Your task to perform on an android device: change timer sound Image 0: 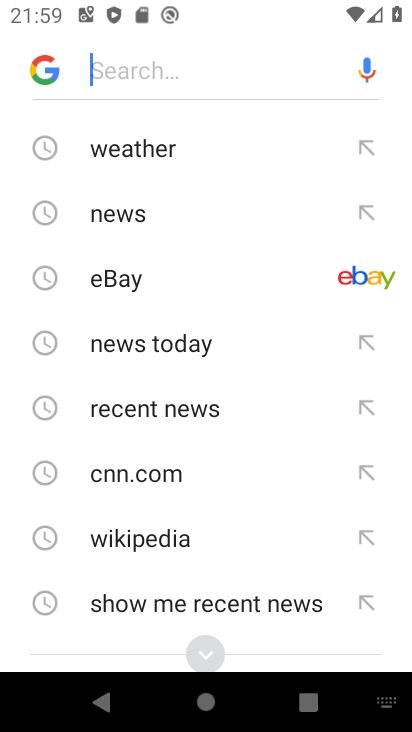
Step 0: press home button
Your task to perform on an android device: change timer sound Image 1: 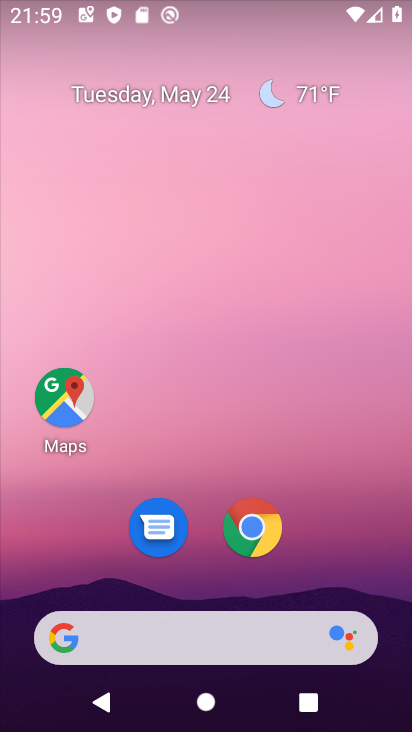
Step 1: drag from (184, 599) to (162, 66)
Your task to perform on an android device: change timer sound Image 2: 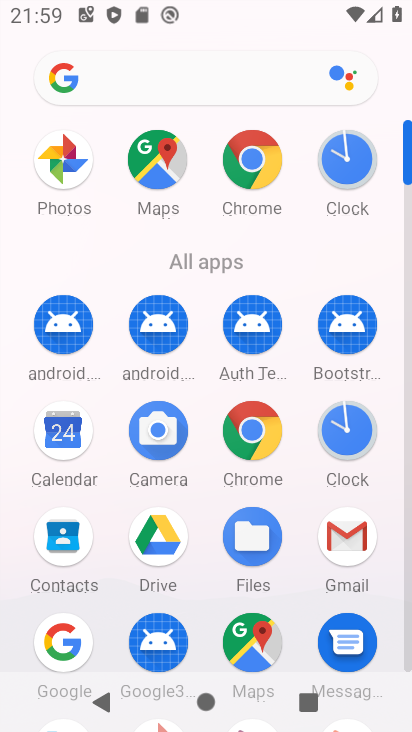
Step 2: click (349, 425)
Your task to perform on an android device: change timer sound Image 3: 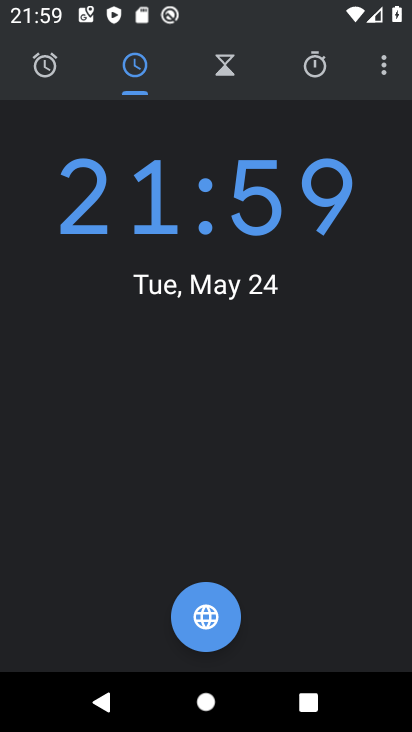
Step 3: click (371, 57)
Your task to perform on an android device: change timer sound Image 4: 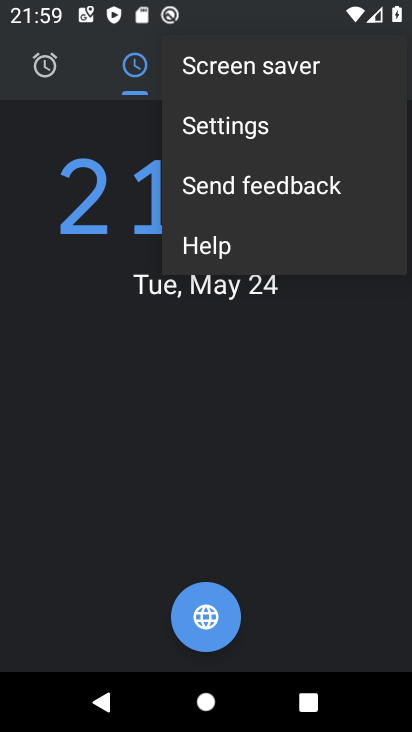
Step 4: click (269, 138)
Your task to perform on an android device: change timer sound Image 5: 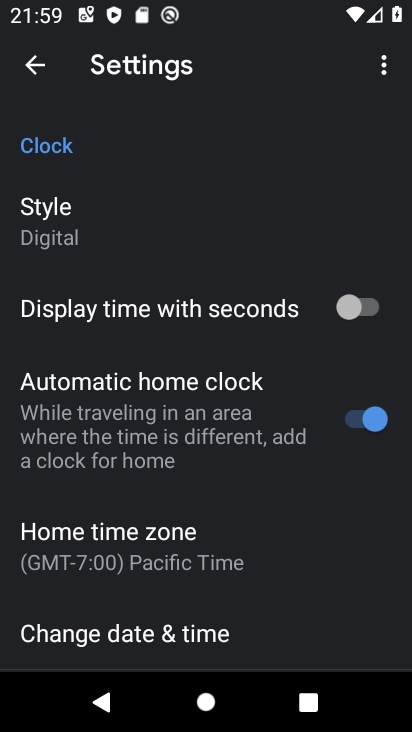
Step 5: drag from (243, 527) to (233, 206)
Your task to perform on an android device: change timer sound Image 6: 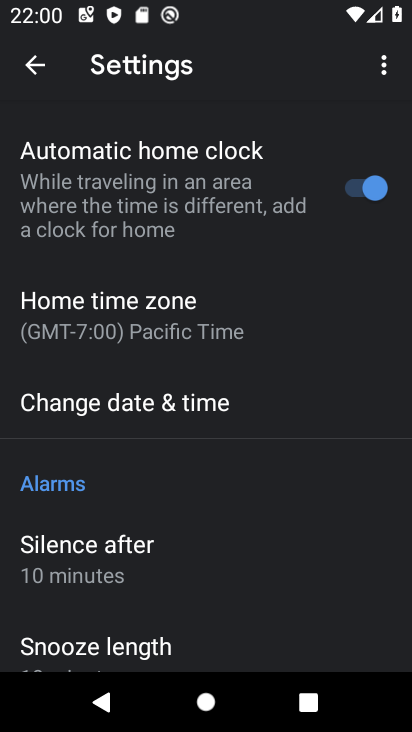
Step 6: drag from (144, 599) to (139, 335)
Your task to perform on an android device: change timer sound Image 7: 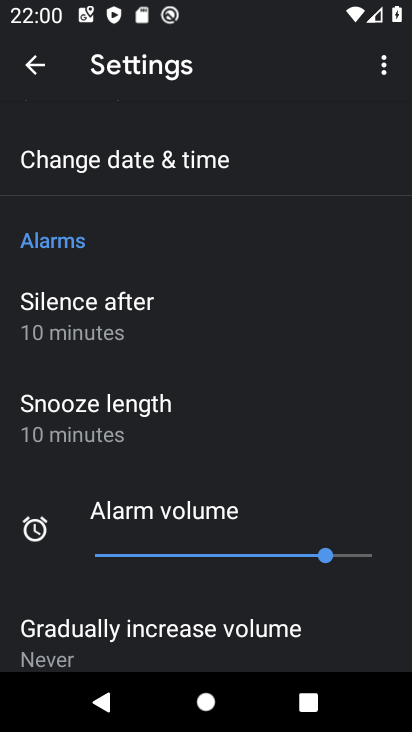
Step 7: drag from (224, 540) to (212, 307)
Your task to perform on an android device: change timer sound Image 8: 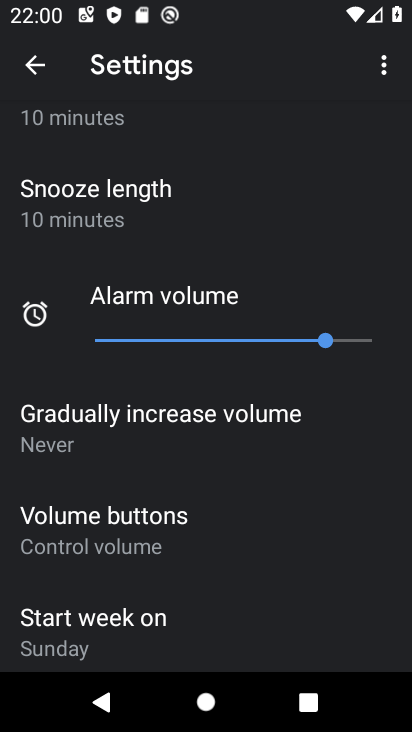
Step 8: drag from (184, 574) to (138, 397)
Your task to perform on an android device: change timer sound Image 9: 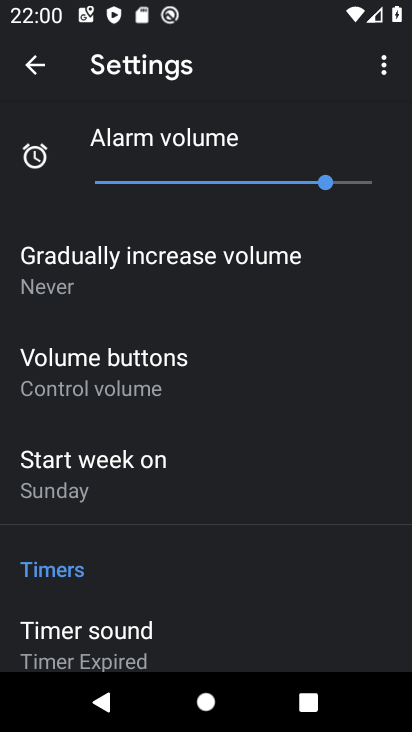
Step 9: click (62, 660)
Your task to perform on an android device: change timer sound Image 10: 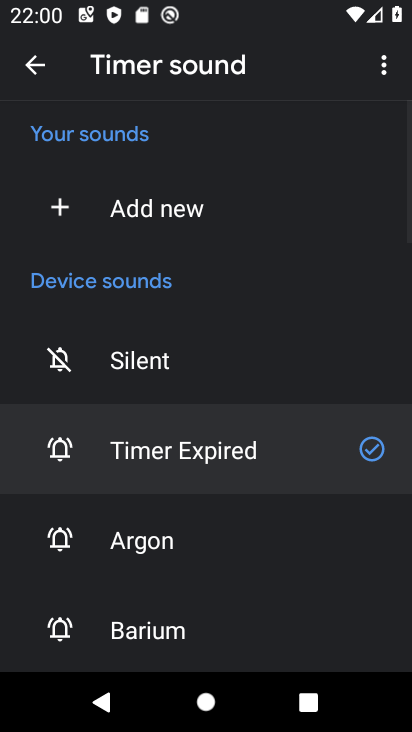
Step 10: click (160, 580)
Your task to perform on an android device: change timer sound Image 11: 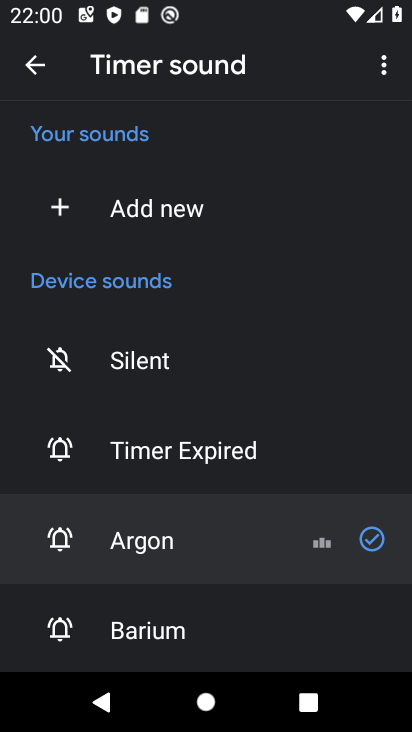
Step 11: task complete